Your task to perform on an android device: Open wifi settings Image 0: 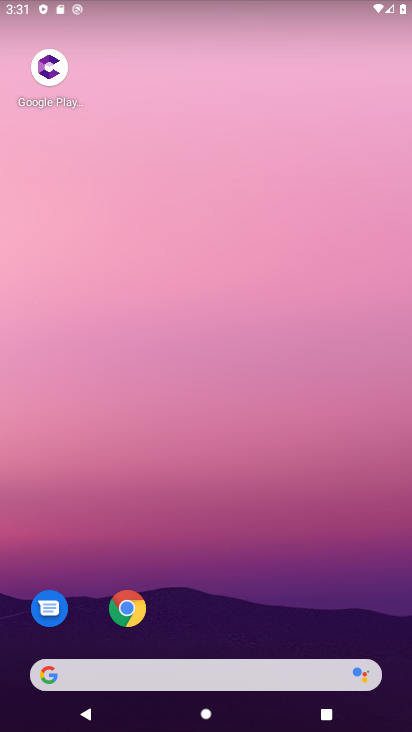
Step 0: drag from (235, 709) to (226, 239)
Your task to perform on an android device: Open wifi settings Image 1: 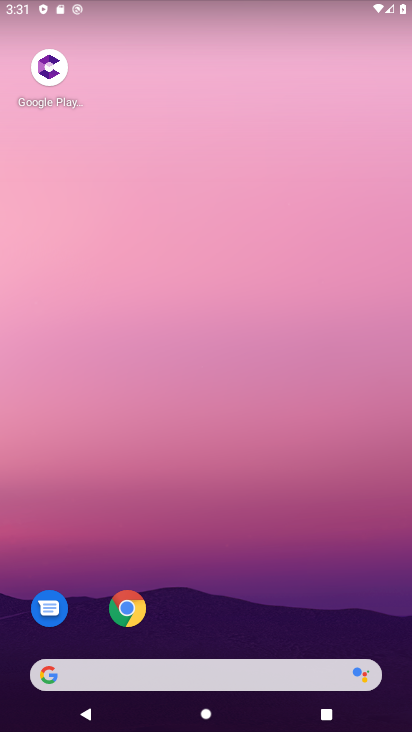
Step 1: drag from (226, 723) to (206, 262)
Your task to perform on an android device: Open wifi settings Image 2: 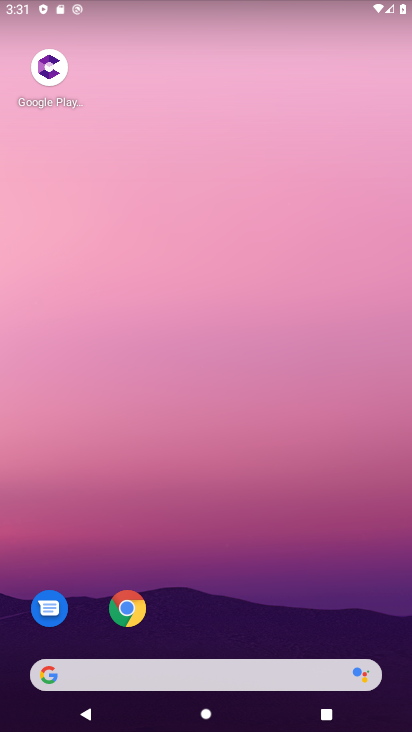
Step 2: drag from (227, 720) to (220, 3)
Your task to perform on an android device: Open wifi settings Image 3: 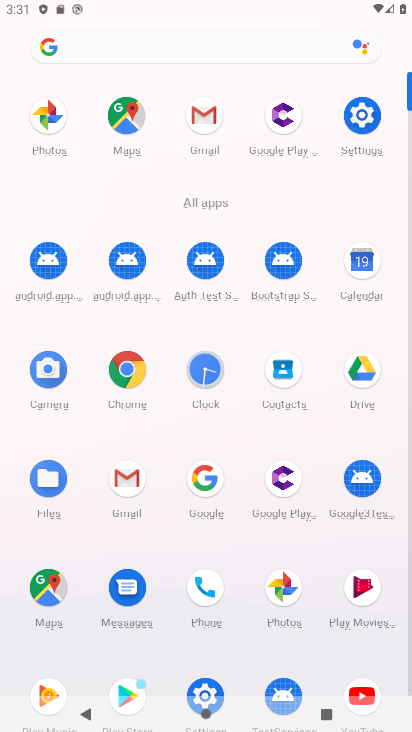
Step 3: click (360, 111)
Your task to perform on an android device: Open wifi settings Image 4: 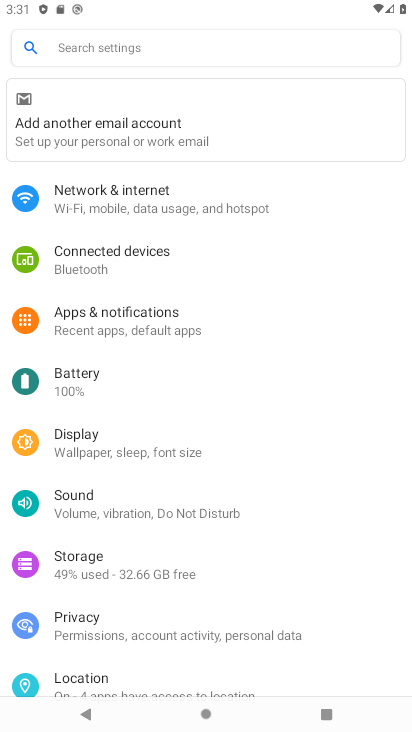
Step 4: click (84, 186)
Your task to perform on an android device: Open wifi settings Image 5: 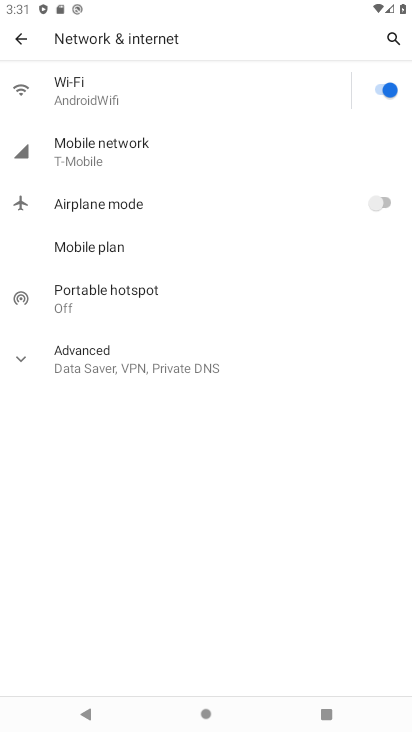
Step 5: click (70, 87)
Your task to perform on an android device: Open wifi settings Image 6: 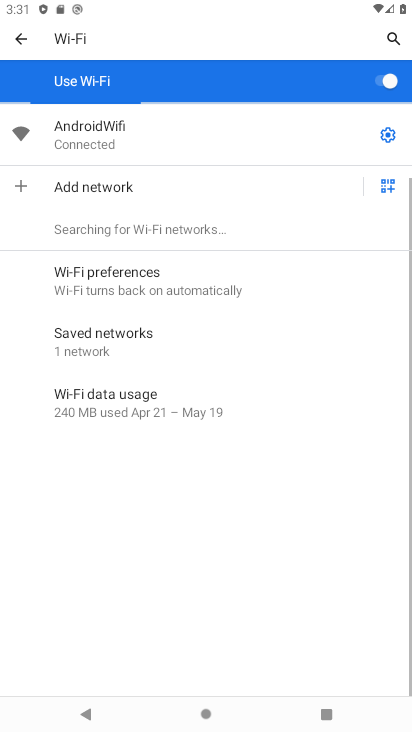
Step 6: task complete